Your task to perform on an android device: What's on my calendar today? Image 0: 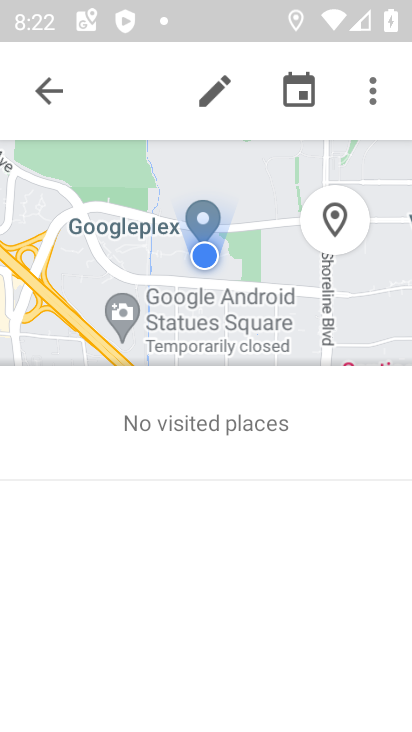
Step 0: press home button
Your task to perform on an android device: What's on my calendar today? Image 1: 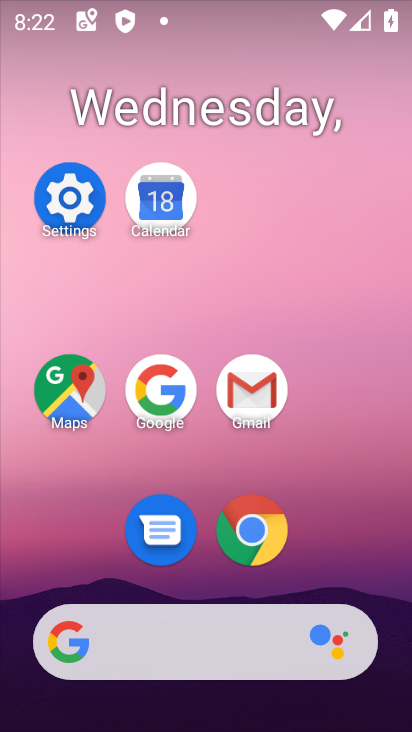
Step 1: click (172, 194)
Your task to perform on an android device: What's on my calendar today? Image 2: 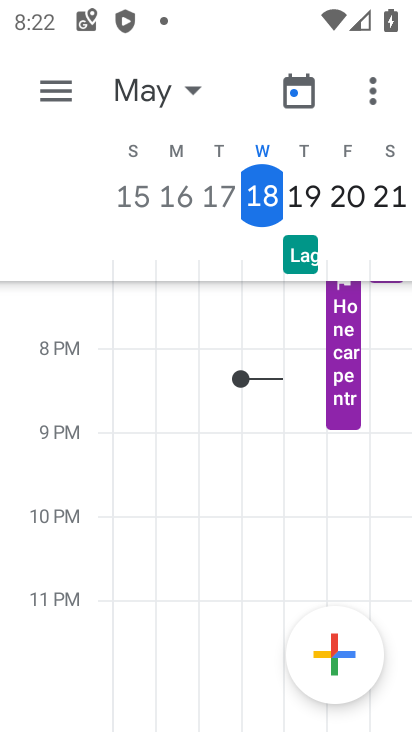
Step 2: click (311, 194)
Your task to perform on an android device: What's on my calendar today? Image 3: 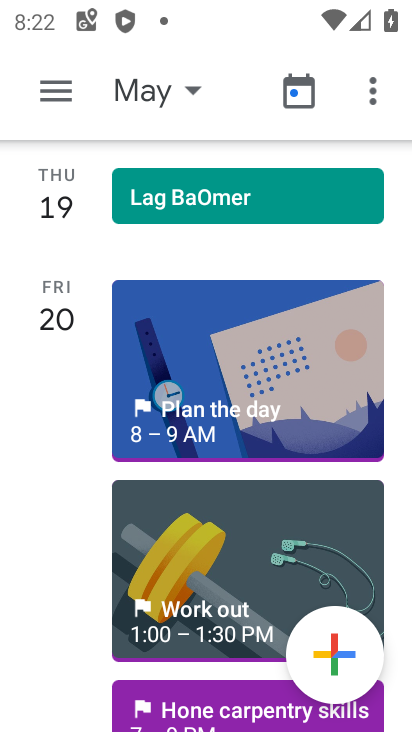
Step 3: task complete